Your task to perform on an android device: Go to sound settings Image 0: 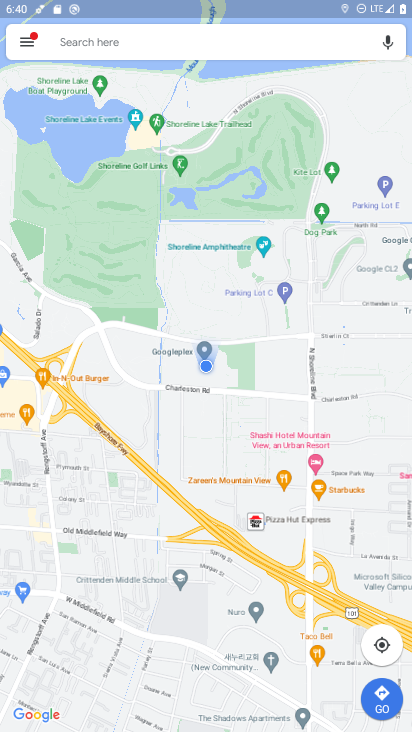
Step 0: press home button
Your task to perform on an android device: Go to sound settings Image 1: 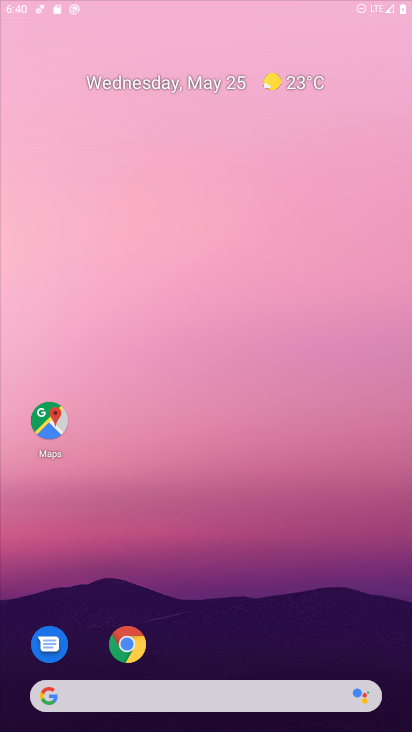
Step 1: drag from (318, 623) to (221, 42)
Your task to perform on an android device: Go to sound settings Image 2: 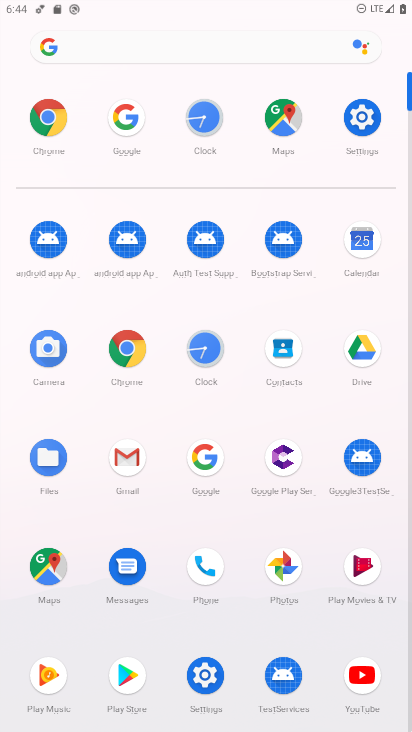
Step 2: click (190, 663)
Your task to perform on an android device: Go to sound settings Image 3: 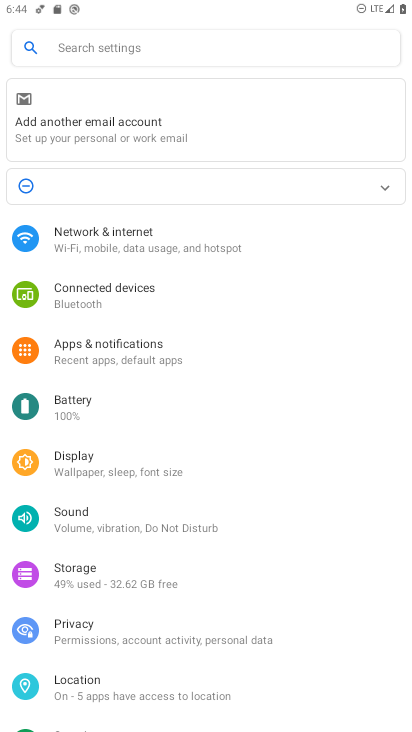
Step 3: click (88, 534)
Your task to perform on an android device: Go to sound settings Image 4: 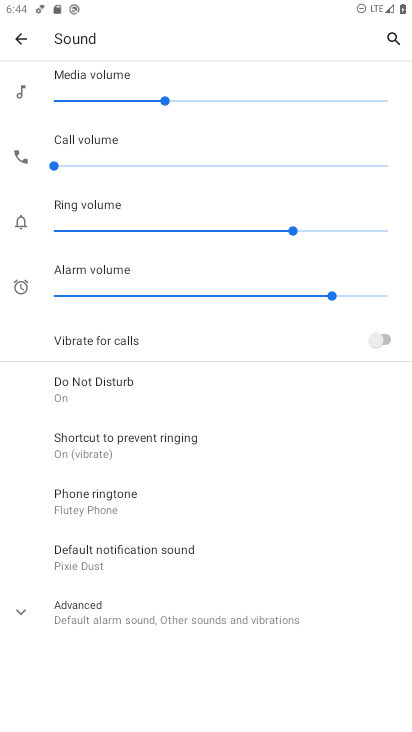
Step 4: task complete